Your task to perform on an android device: What's the weather? Image 0: 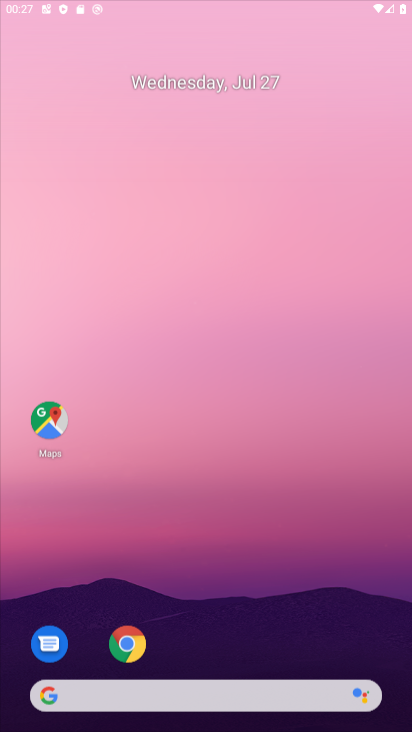
Step 0: click (237, 144)
Your task to perform on an android device: What's the weather? Image 1: 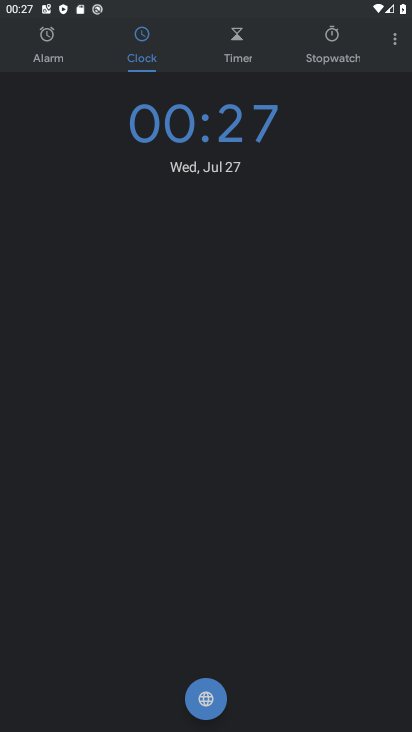
Step 1: drag from (339, 551) to (258, 266)
Your task to perform on an android device: What's the weather? Image 2: 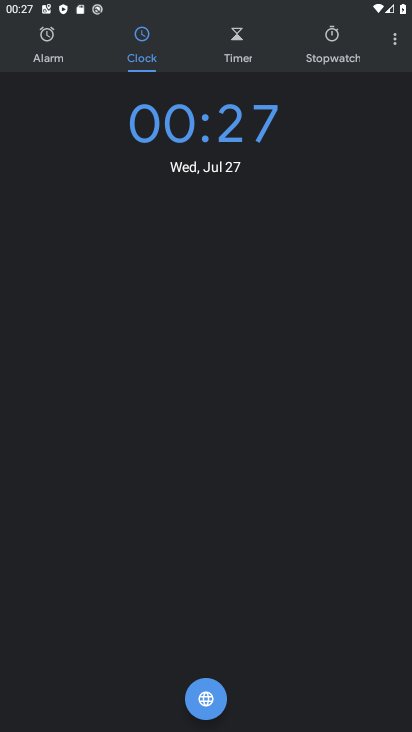
Step 2: press back button
Your task to perform on an android device: What's the weather? Image 3: 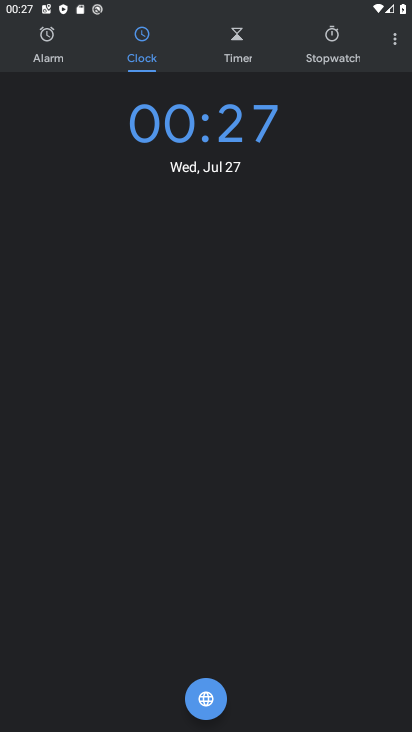
Step 3: press back button
Your task to perform on an android device: What's the weather? Image 4: 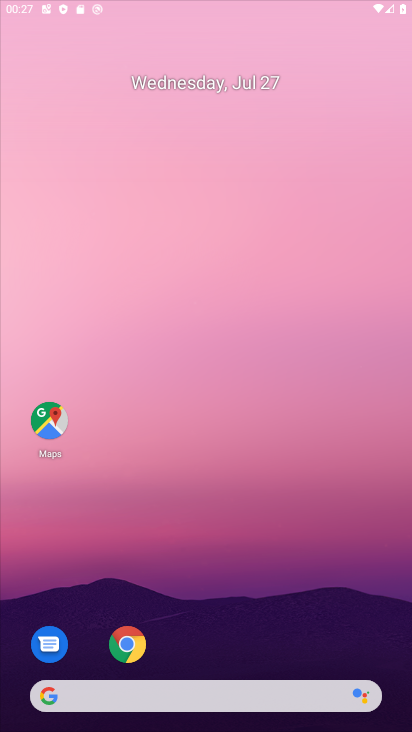
Step 4: press back button
Your task to perform on an android device: What's the weather? Image 5: 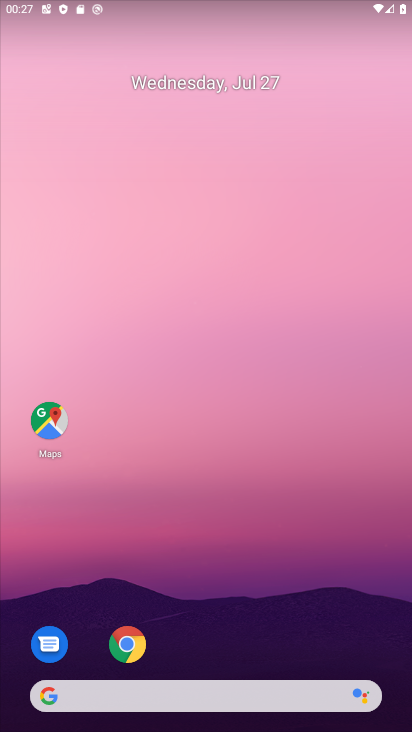
Step 5: click (173, 32)
Your task to perform on an android device: What's the weather? Image 6: 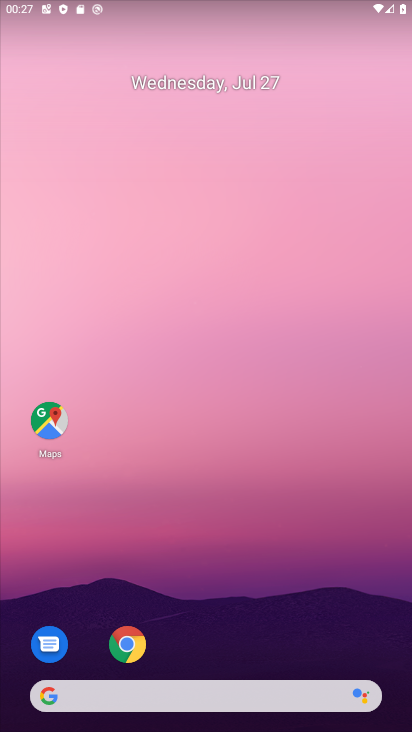
Step 6: drag from (184, 357) to (152, 13)
Your task to perform on an android device: What's the weather? Image 7: 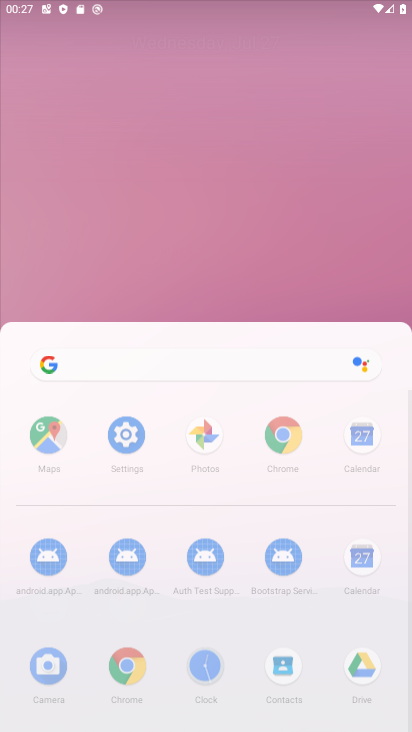
Step 7: click (161, 57)
Your task to perform on an android device: What's the weather? Image 8: 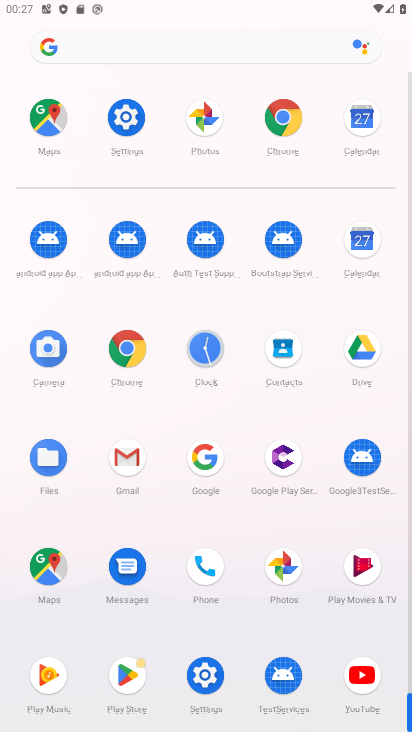
Step 8: click (158, 298)
Your task to perform on an android device: What's the weather? Image 9: 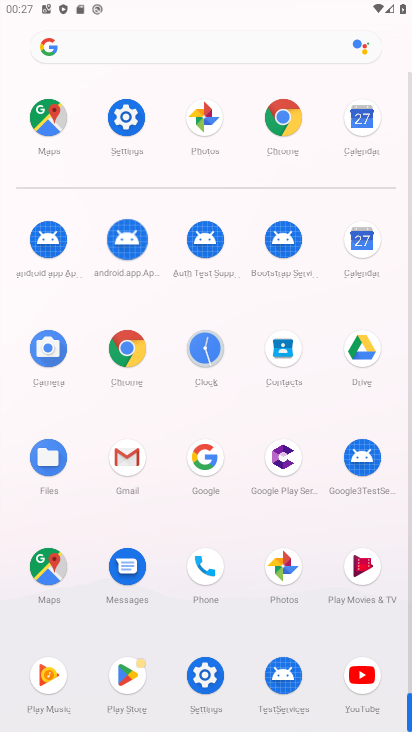
Step 9: click (272, 111)
Your task to perform on an android device: What's the weather? Image 10: 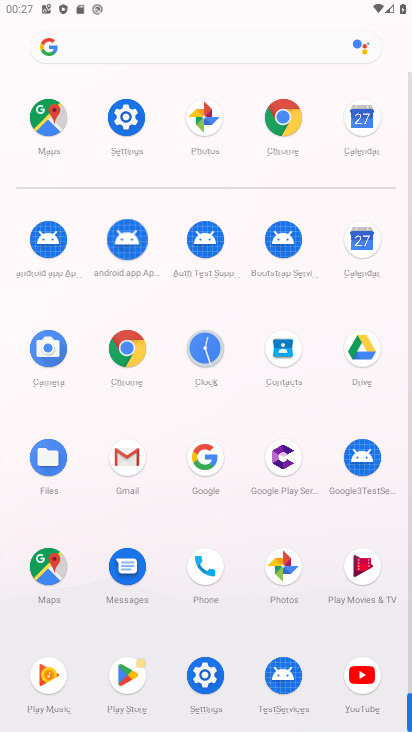
Step 10: click (275, 111)
Your task to perform on an android device: What's the weather? Image 11: 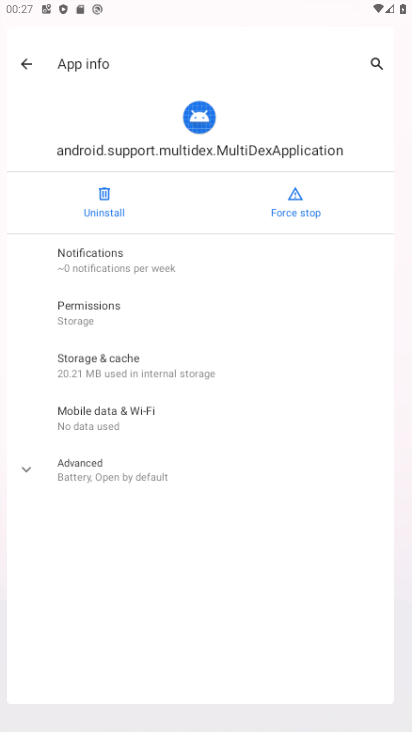
Step 11: click (275, 111)
Your task to perform on an android device: What's the weather? Image 12: 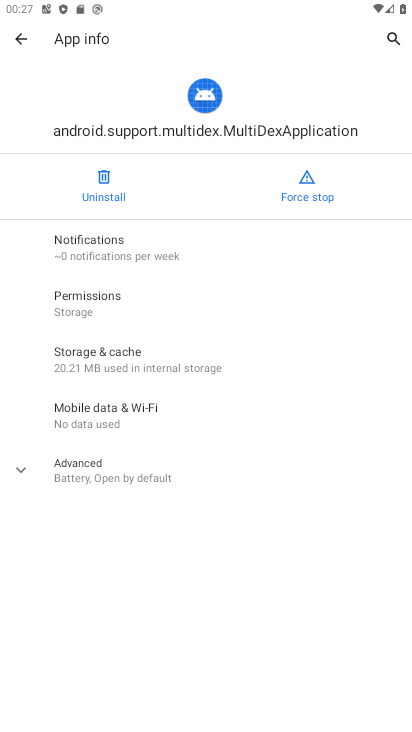
Step 12: click (276, 111)
Your task to perform on an android device: What's the weather? Image 13: 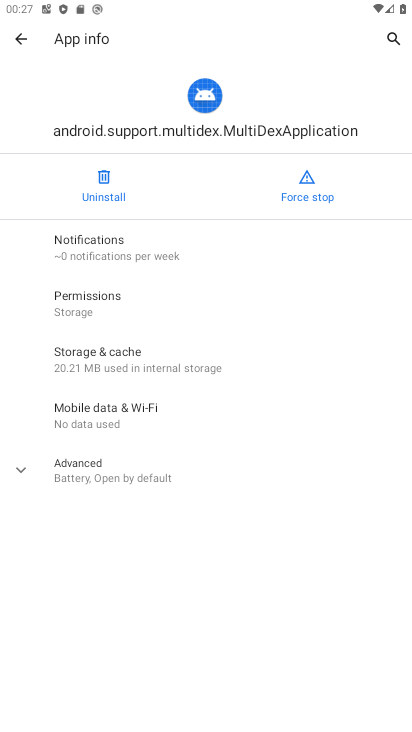
Step 13: click (13, 42)
Your task to perform on an android device: What's the weather? Image 14: 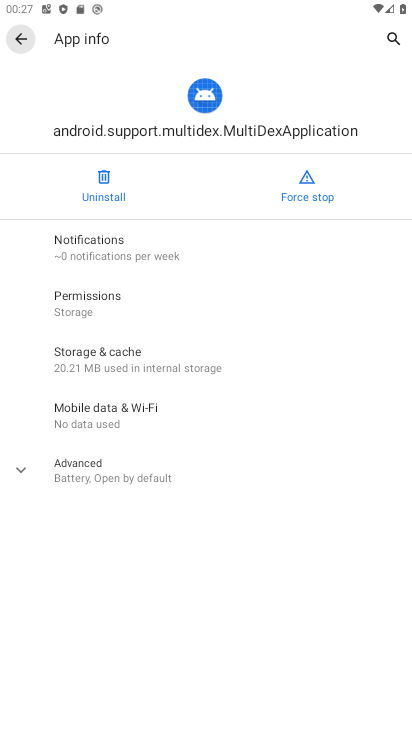
Step 14: click (14, 43)
Your task to perform on an android device: What's the weather? Image 15: 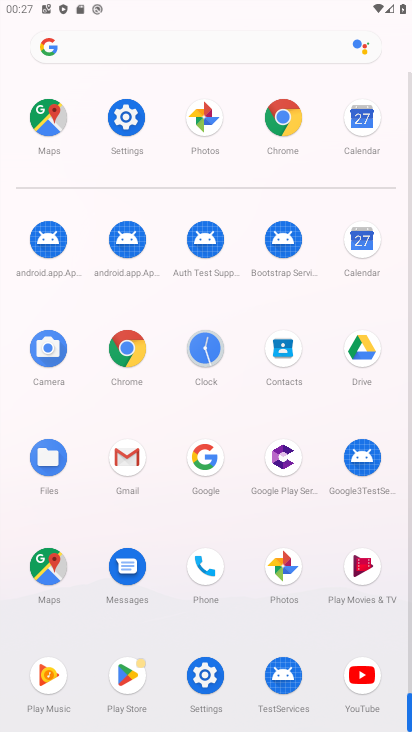
Step 15: click (288, 116)
Your task to perform on an android device: What's the weather? Image 16: 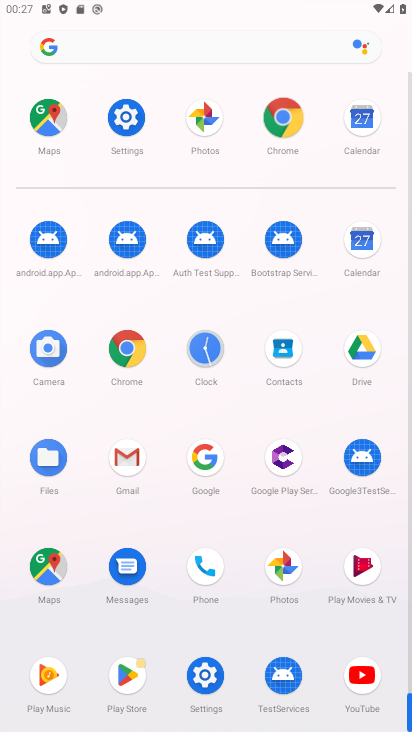
Step 16: click (288, 116)
Your task to perform on an android device: What's the weather? Image 17: 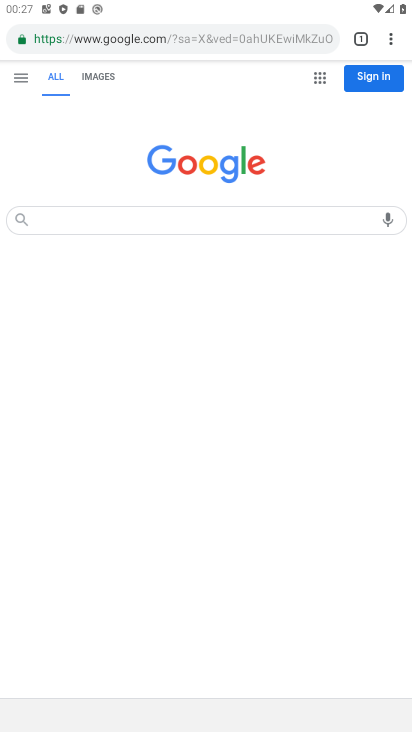
Step 17: click (51, 217)
Your task to perform on an android device: What's the weather? Image 18: 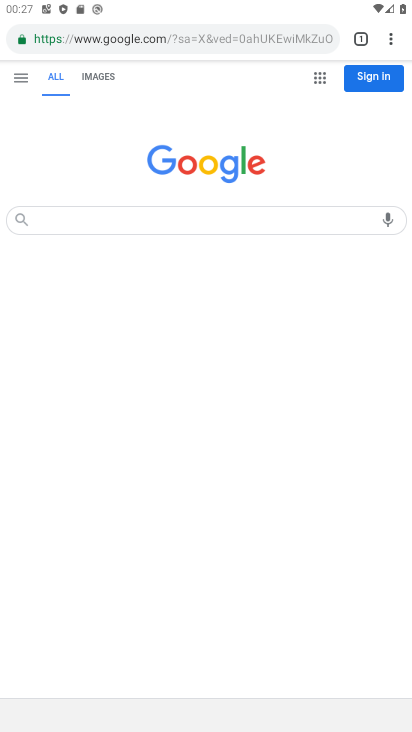
Step 18: click (57, 214)
Your task to perform on an android device: What's the weather? Image 19: 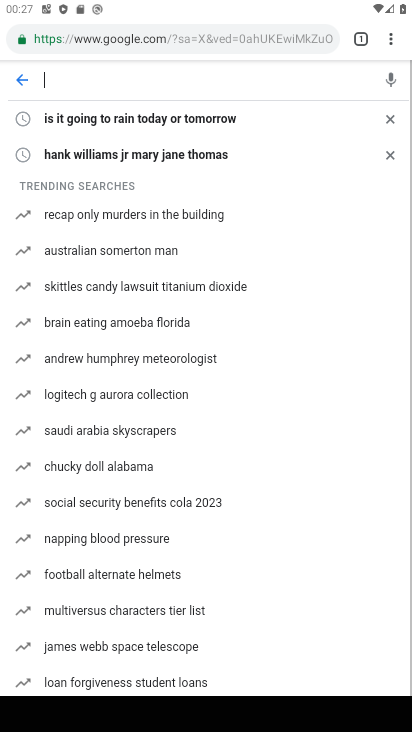
Step 19: click (59, 213)
Your task to perform on an android device: What's the weather? Image 20: 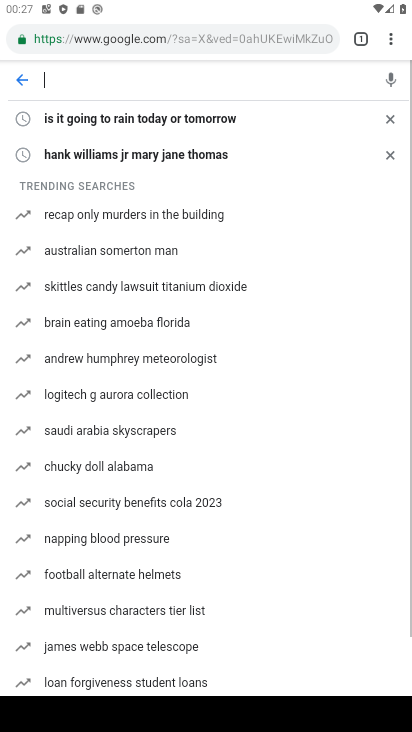
Step 20: click (59, 213)
Your task to perform on an android device: What's the weather? Image 21: 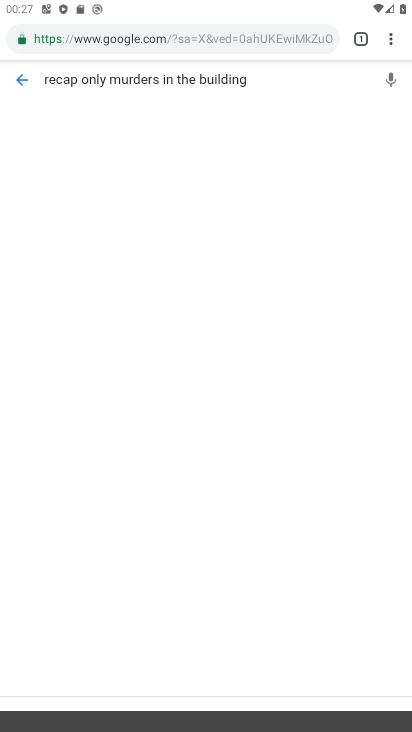
Step 21: click (65, 209)
Your task to perform on an android device: What's the weather? Image 22: 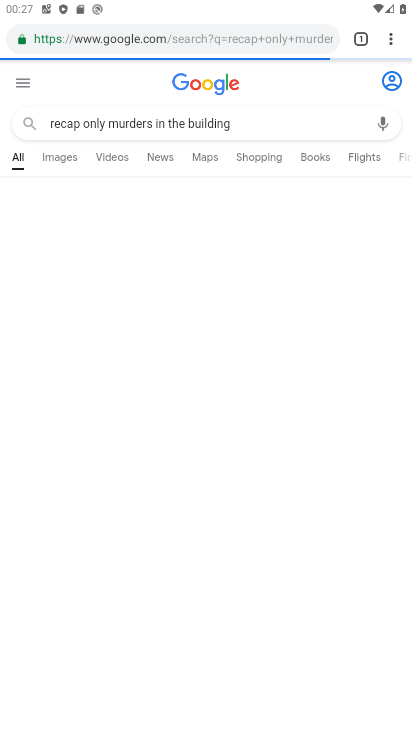
Step 22: click (257, 129)
Your task to perform on an android device: What's the weather? Image 23: 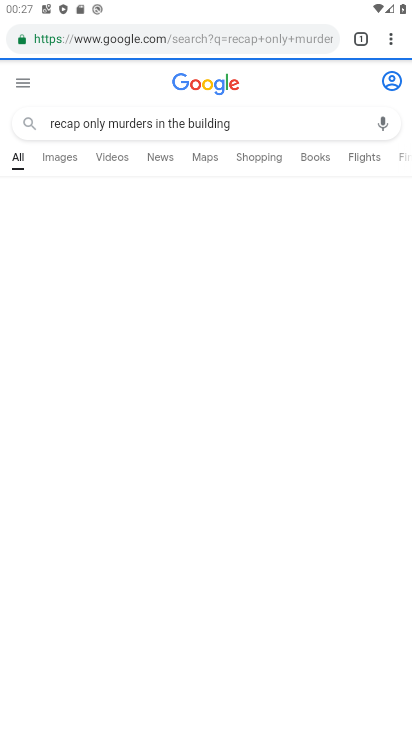
Step 23: click (257, 129)
Your task to perform on an android device: What's the weather? Image 24: 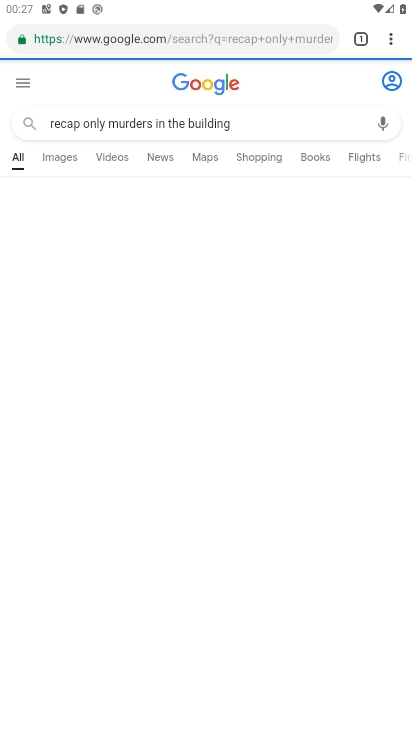
Step 24: click (258, 130)
Your task to perform on an android device: What's the weather? Image 25: 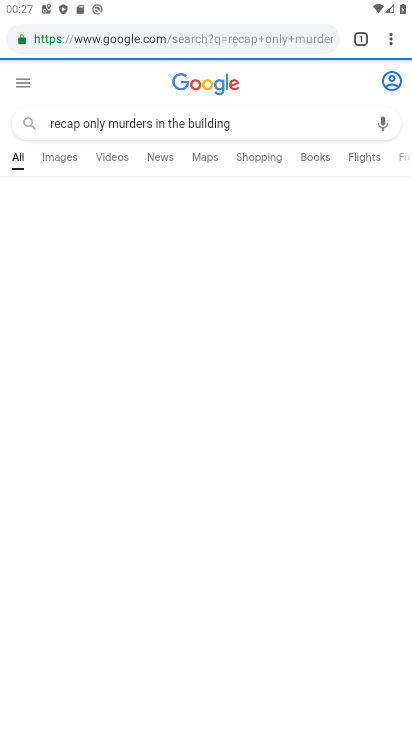
Step 25: click (258, 130)
Your task to perform on an android device: What's the weather? Image 26: 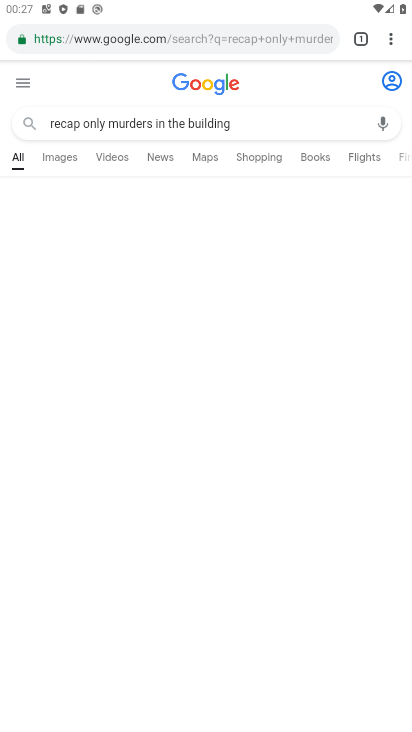
Step 26: click (260, 130)
Your task to perform on an android device: What's the weather? Image 27: 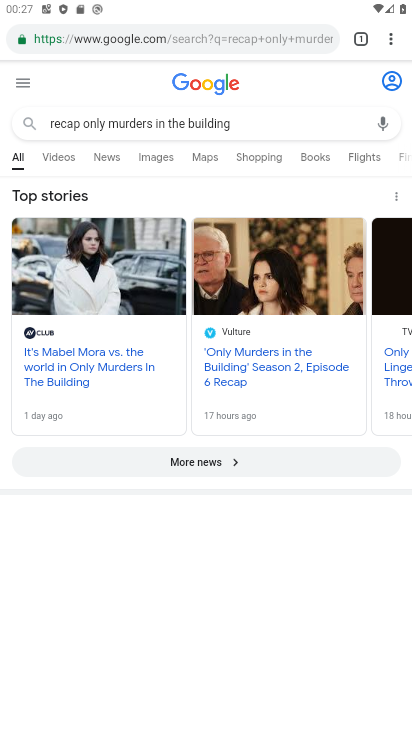
Step 27: click (262, 132)
Your task to perform on an android device: What's the weather? Image 28: 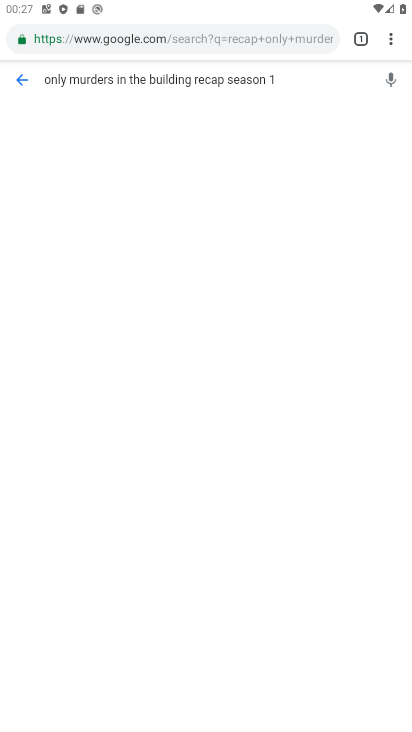
Step 28: click (262, 132)
Your task to perform on an android device: What's the weather? Image 29: 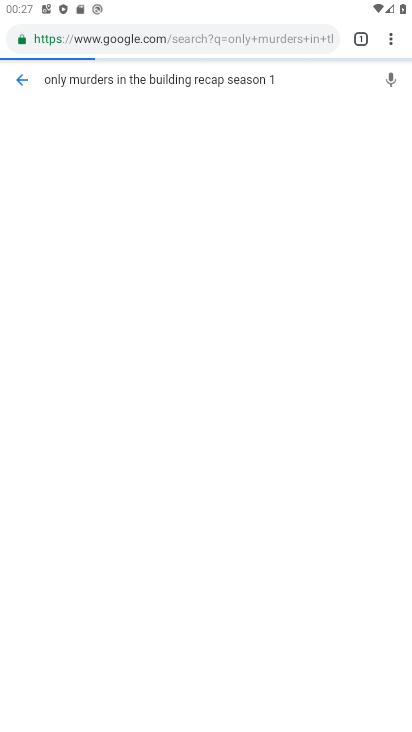
Step 29: click (390, 30)
Your task to perform on an android device: What's the weather? Image 30: 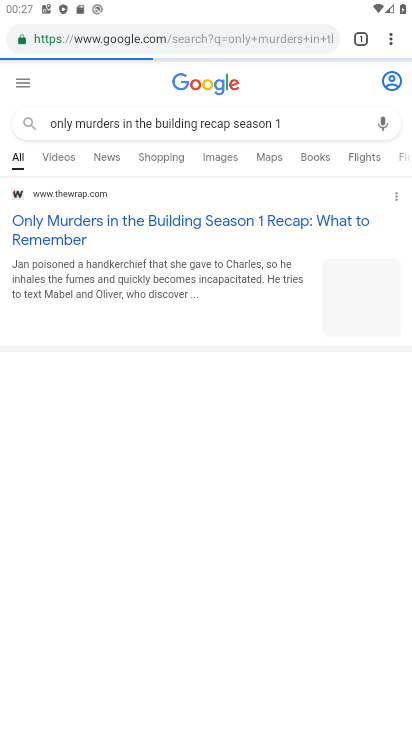
Step 30: click (390, 30)
Your task to perform on an android device: What's the weather? Image 31: 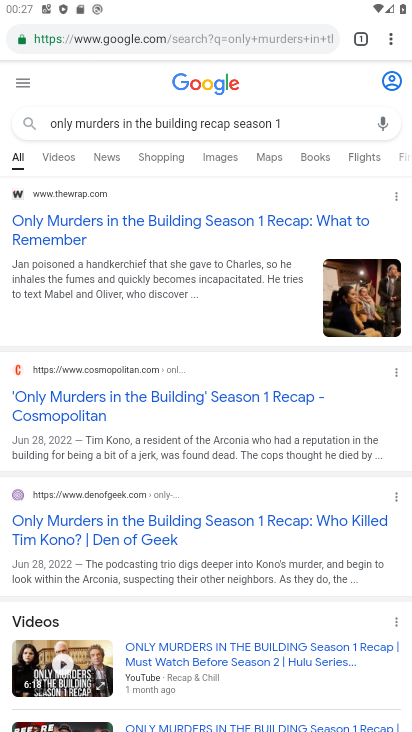
Step 31: drag from (382, 37) to (239, 75)
Your task to perform on an android device: What's the weather? Image 32: 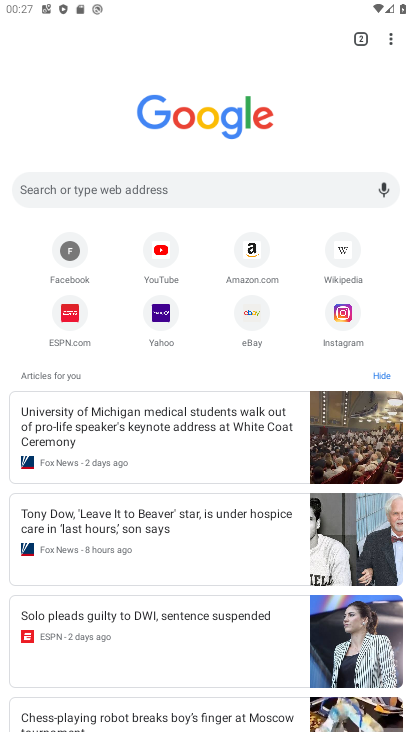
Step 32: click (60, 192)
Your task to perform on an android device: What's the weather? Image 33: 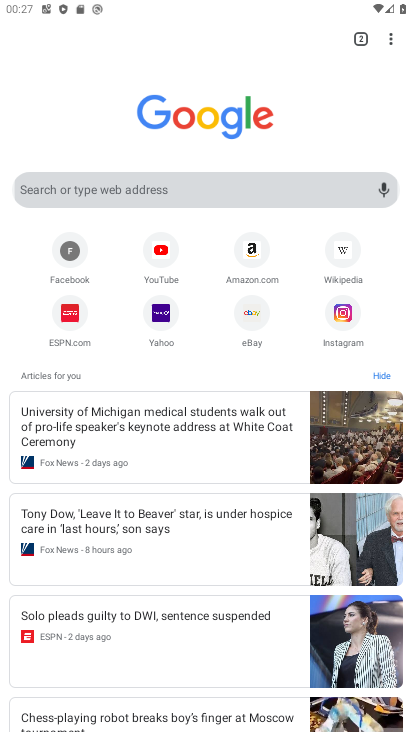
Step 33: click (60, 192)
Your task to perform on an android device: What's the weather? Image 34: 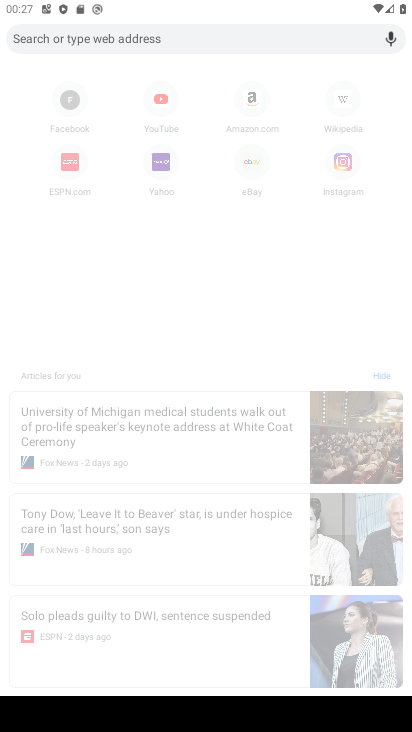
Step 34: type "what's the weather?"
Your task to perform on an android device: What's the weather? Image 35: 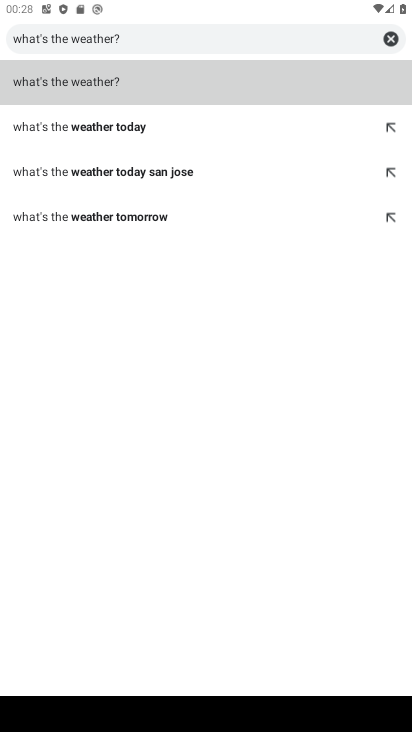
Step 35: click (113, 87)
Your task to perform on an android device: What's the weather? Image 36: 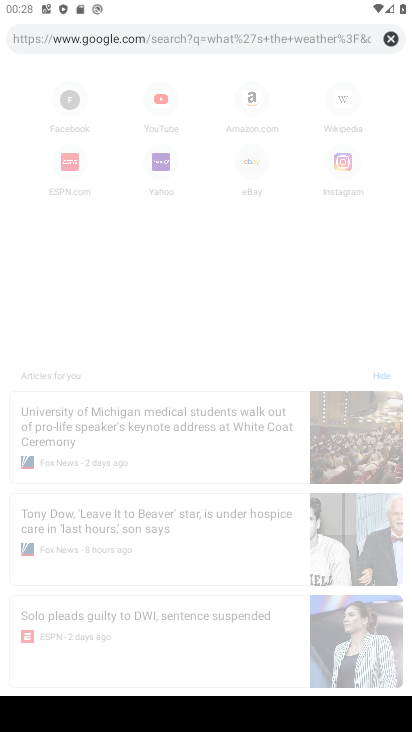
Step 36: click (113, 87)
Your task to perform on an android device: What's the weather? Image 37: 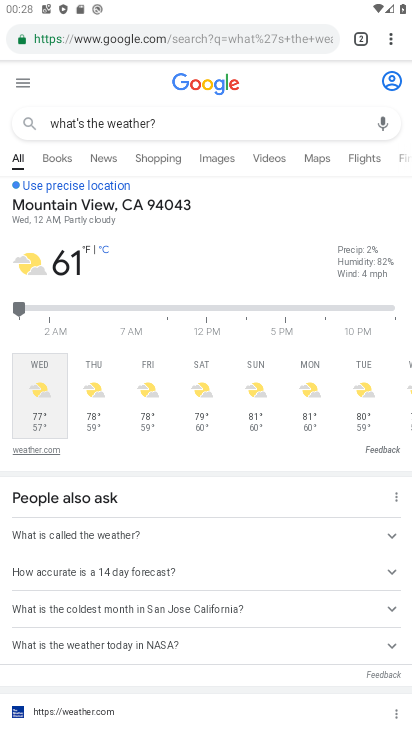
Step 37: task complete